Your task to perform on an android device: Open calendar and show me the second week of next month Image 0: 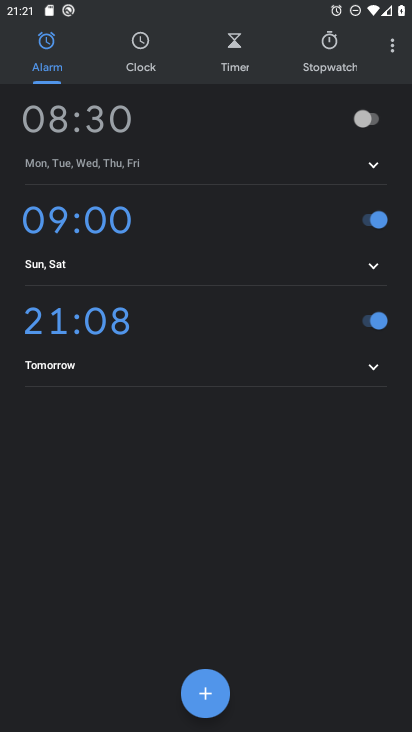
Step 0: press home button
Your task to perform on an android device: Open calendar and show me the second week of next month Image 1: 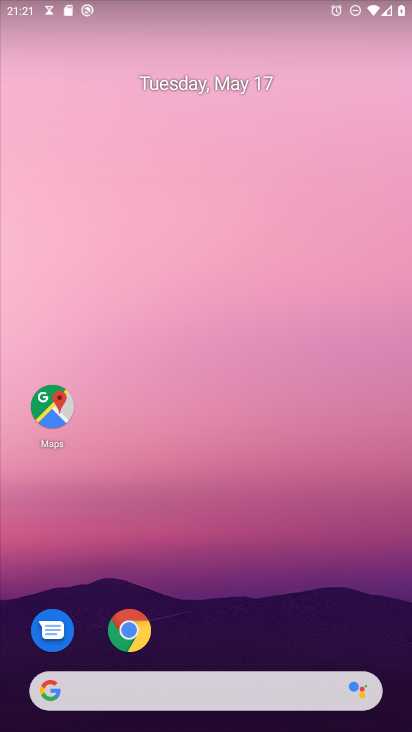
Step 1: drag from (198, 620) to (193, 151)
Your task to perform on an android device: Open calendar and show me the second week of next month Image 2: 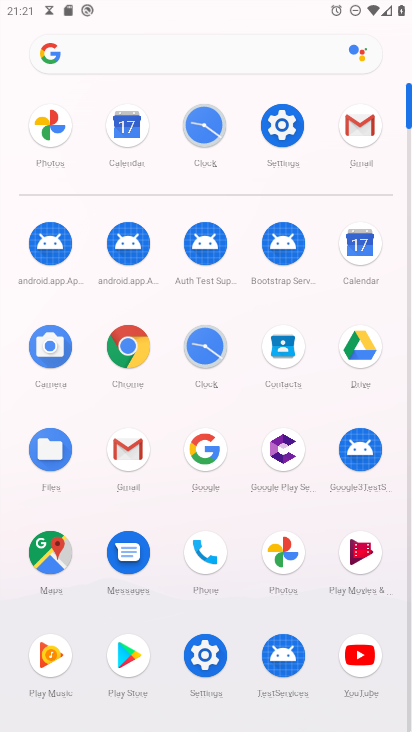
Step 2: click (361, 233)
Your task to perform on an android device: Open calendar and show me the second week of next month Image 3: 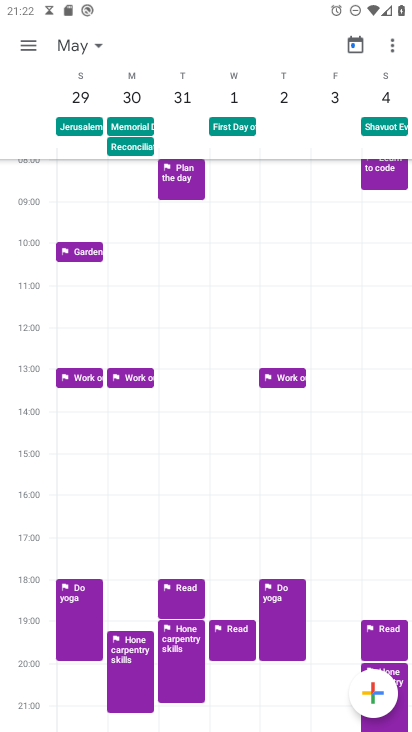
Step 3: task complete